Your task to perform on an android device: What is the recent news? Image 0: 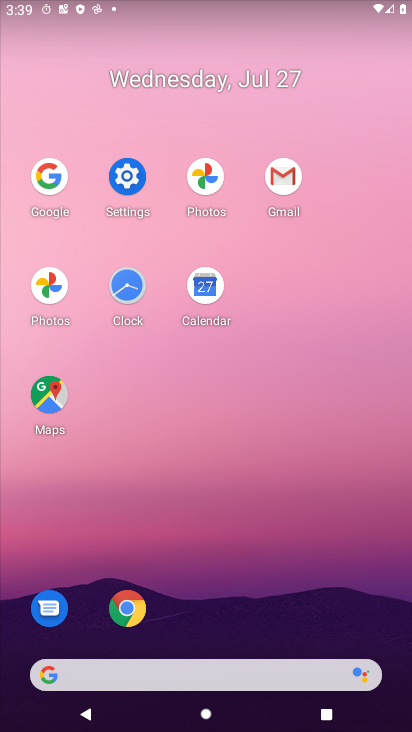
Step 0: click (49, 178)
Your task to perform on an android device: What is the recent news? Image 1: 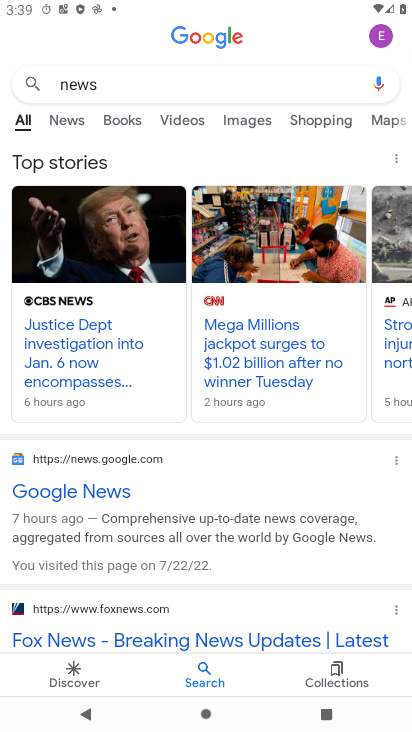
Step 1: click (194, 82)
Your task to perform on an android device: What is the recent news? Image 2: 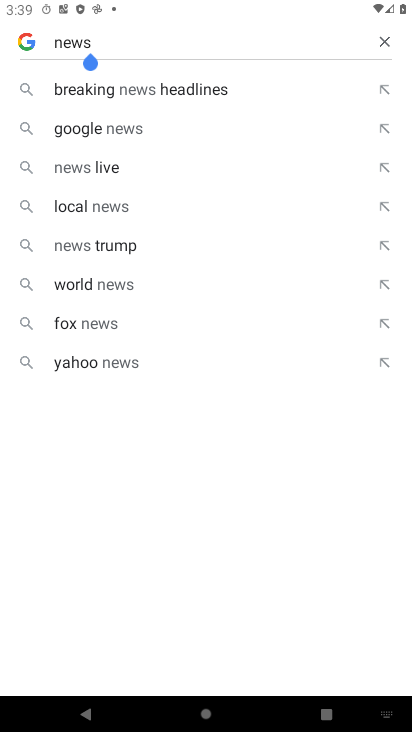
Step 2: click (386, 35)
Your task to perform on an android device: What is the recent news? Image 3: 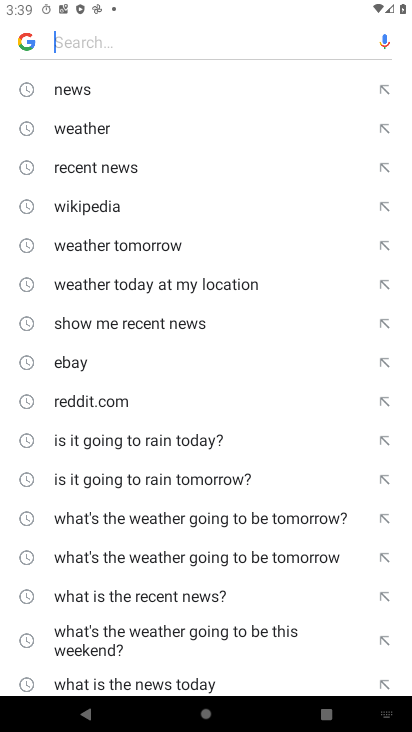
Step 3: click (95, 166)
Your task to perform on an android device: What is the recent news? Image 4: 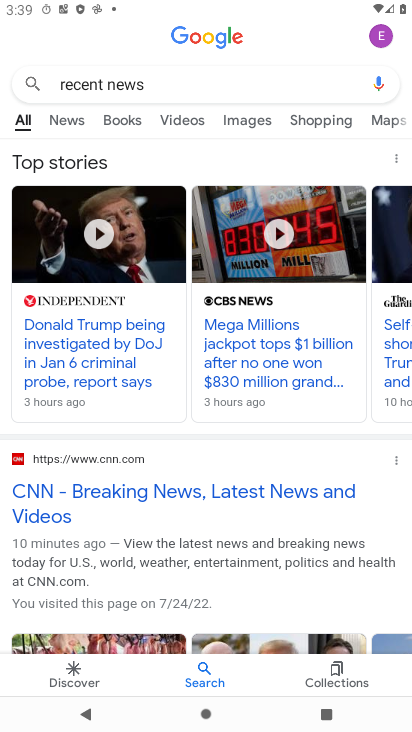
Step 4: task complete